Your task to perform on an android device: turn smart compose on in the gmail app Image 0: 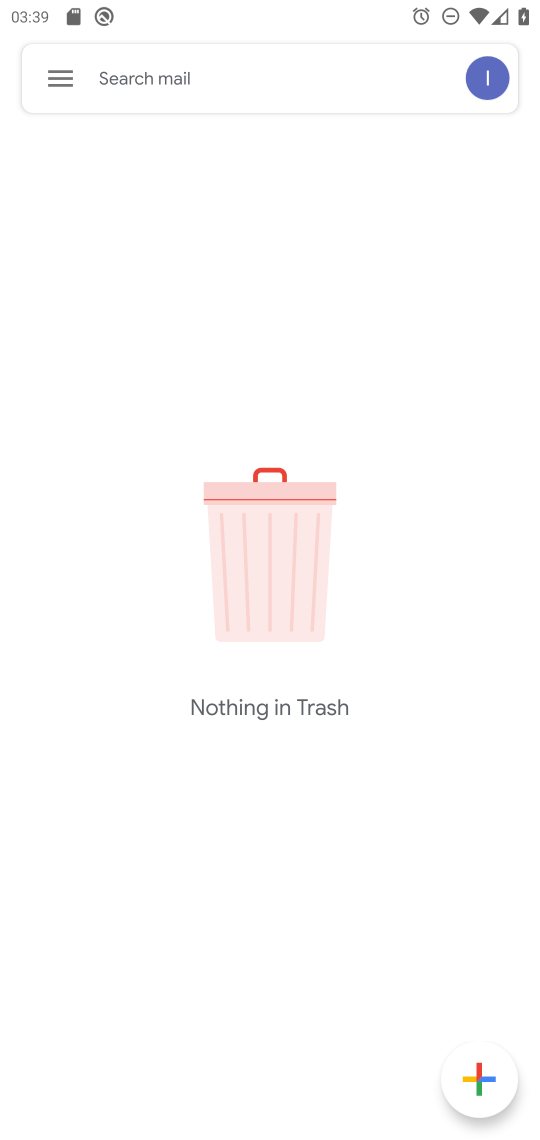
Step 0: press home button
Your task to perform on an android device: turn smart compose on in the gmail app Image 1: 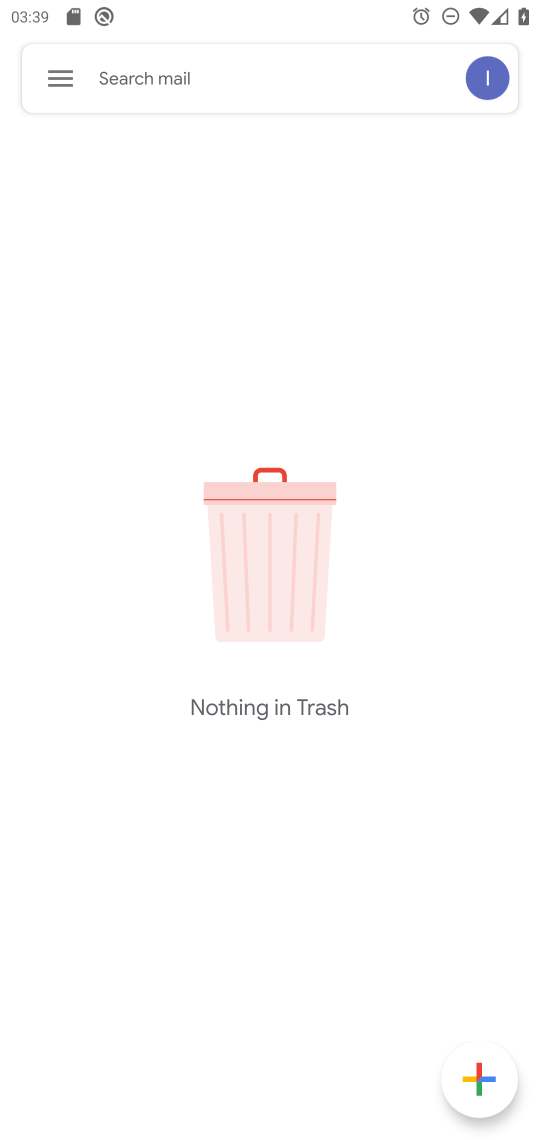
Step 1: press home button
Your task to perform on an android device: turn smart compose on in the gmail app Image 2: 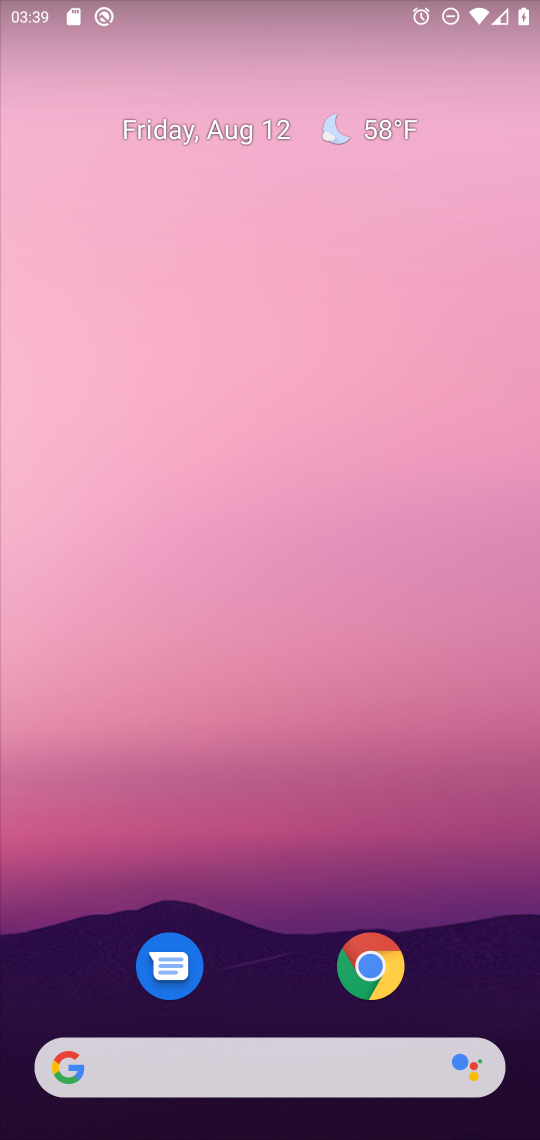
Step 2: drag from (318, 668) to (389, 45)
Your task to perform on an android device: turn smart compose on in the gmail app Image 3: 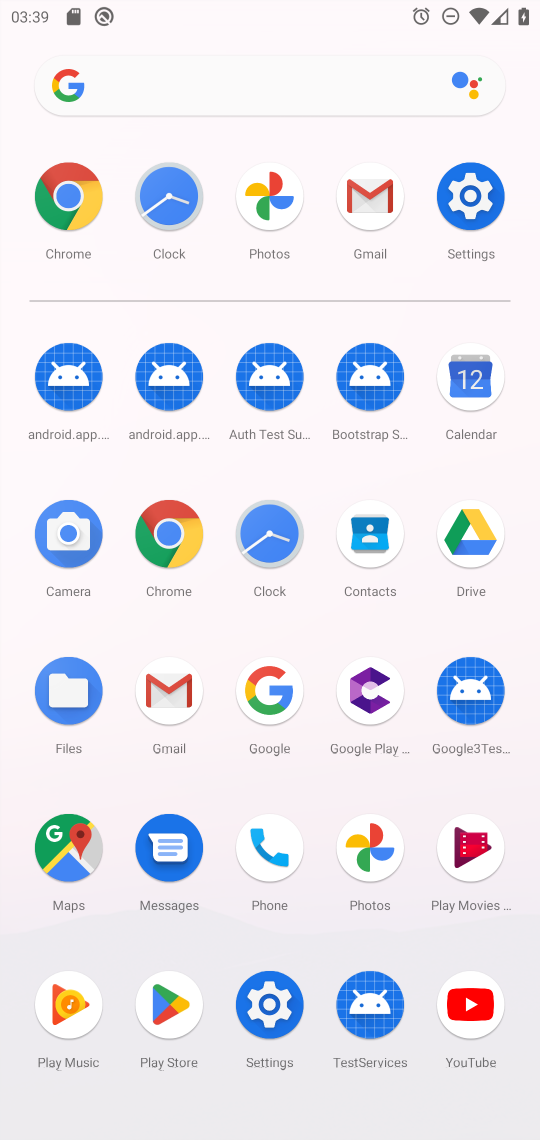
Step 3: click (375, 194)
Your task to perform on an android device: turn smart compose on in the gmail app Image 4: 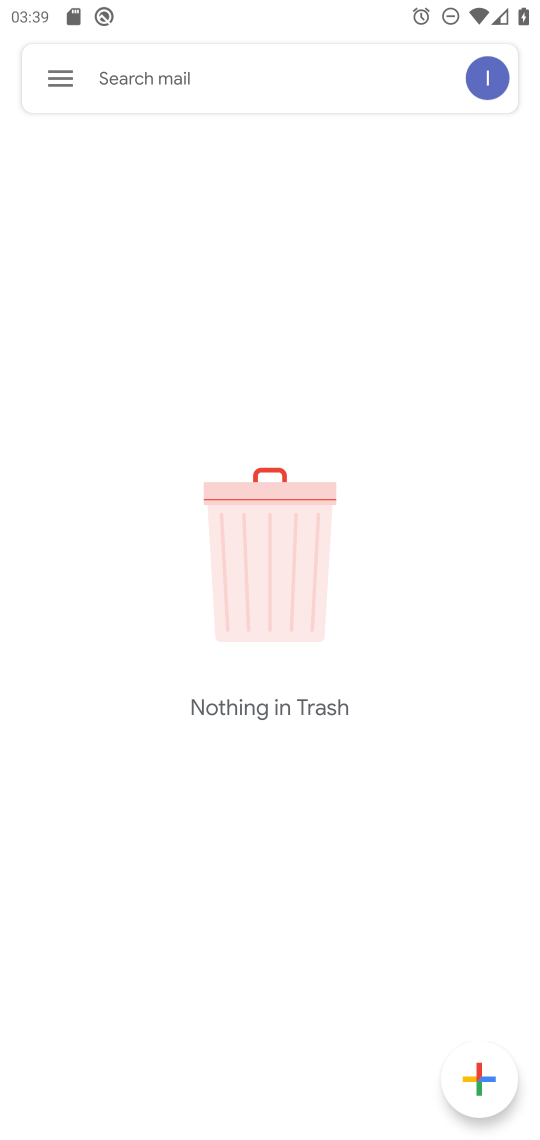
Step 4: click (49, 70)
Your task to perform on an android device: turn smart compose on in the gmail app Image 5: 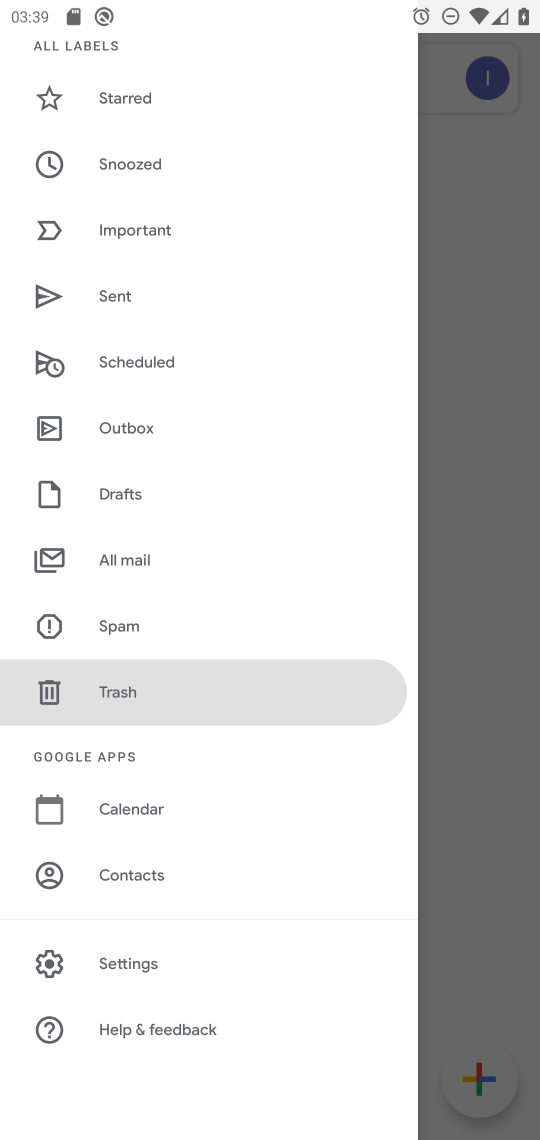
Step 5: click (160, 963)
Your task to perform on an android device: turn smart compose on in the gmail app Image 6: 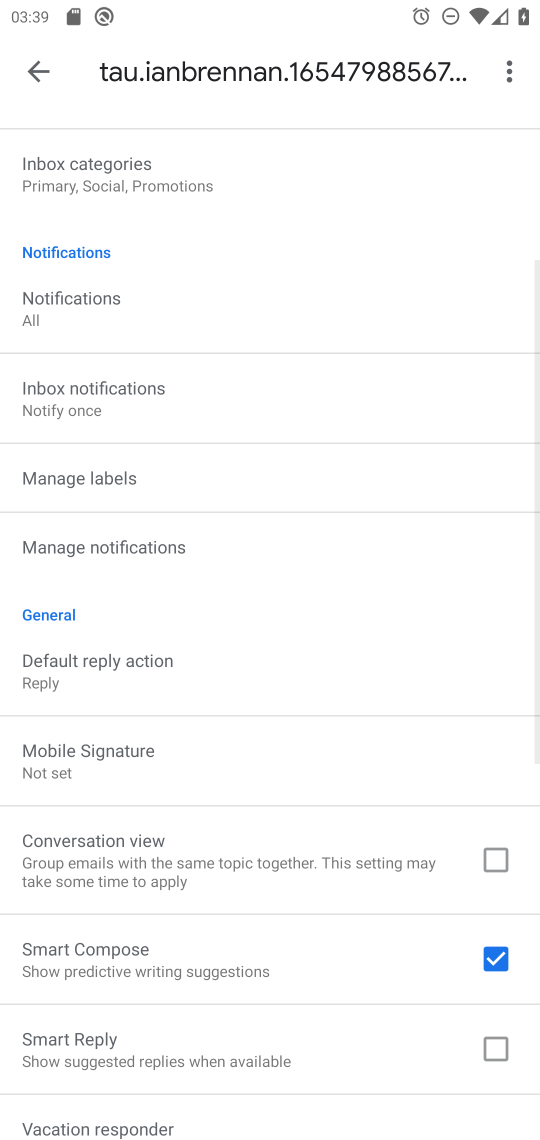
Step 6: task complete